Your task to perform on an android device: install app "VLC for Android" Image 0: 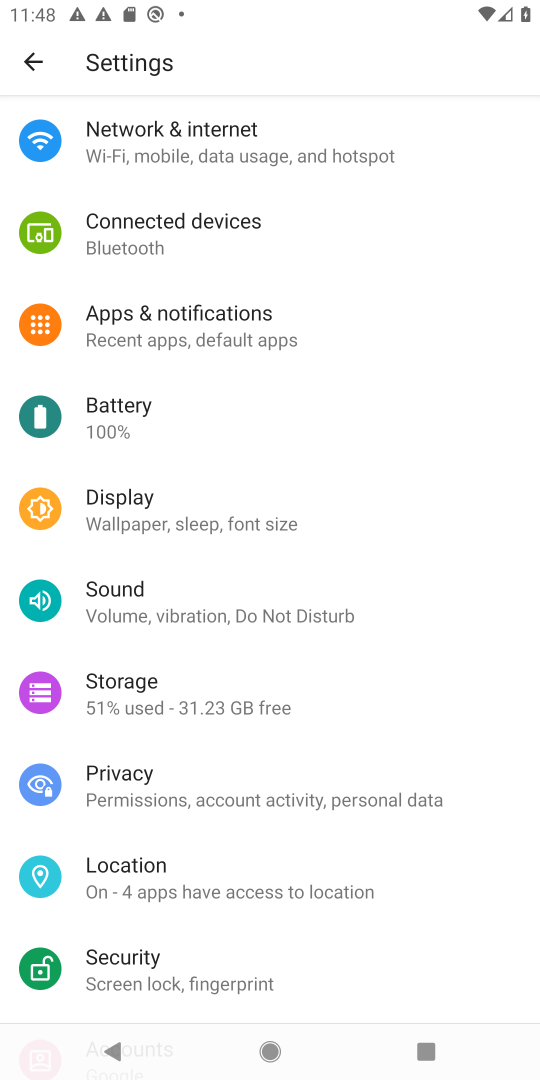
Step 0: press home button
Your task to perform on an android device: install app "VLC for Android" Image 1: 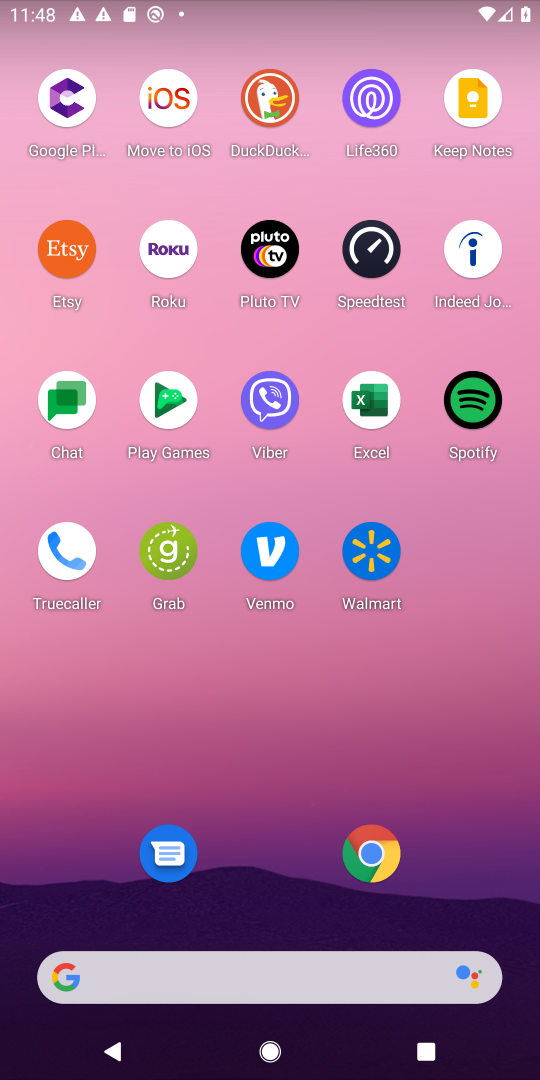
Step 1: drag from (297, 1010) to (300, 40)
Your task to perform on an android device: install app "VLC for Android" Image 2: 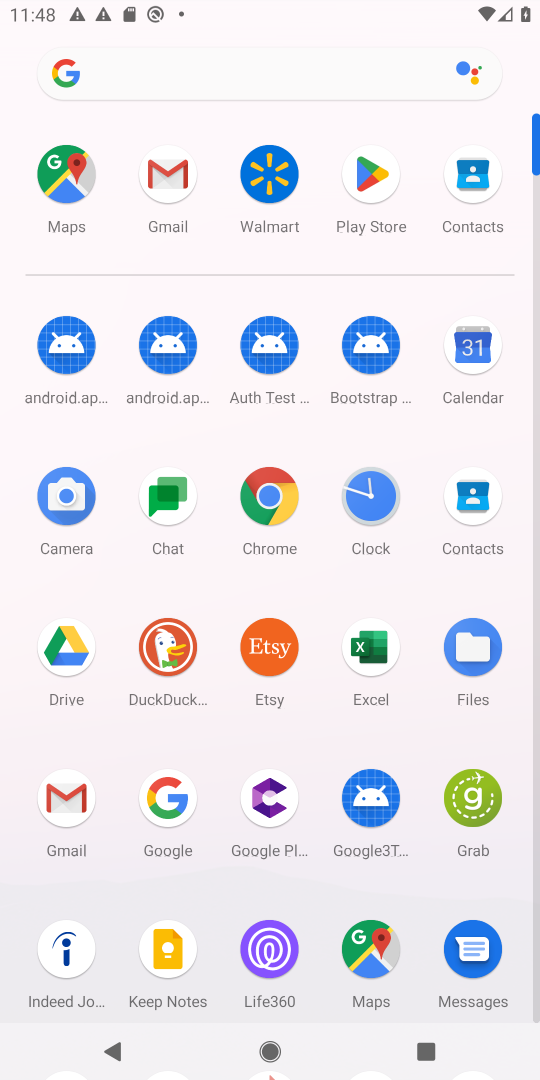
Step 2: click (372, 174)
Your task to perform on an android device: install app "VLC for Android" Image 3: 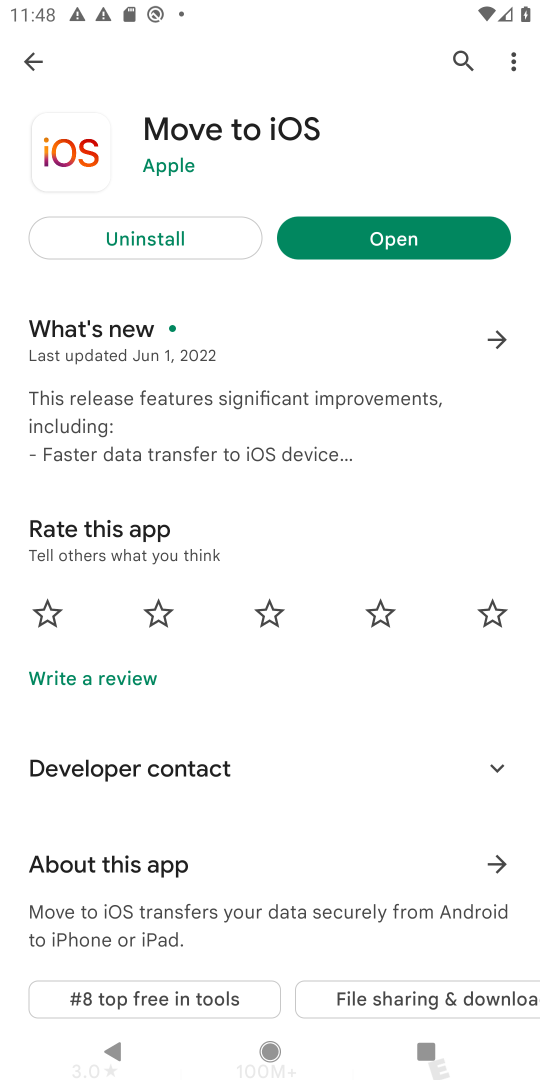
Step 3: click (459, 48)
Your task to perform on an android device: install app "VLC for Android" Image 4: 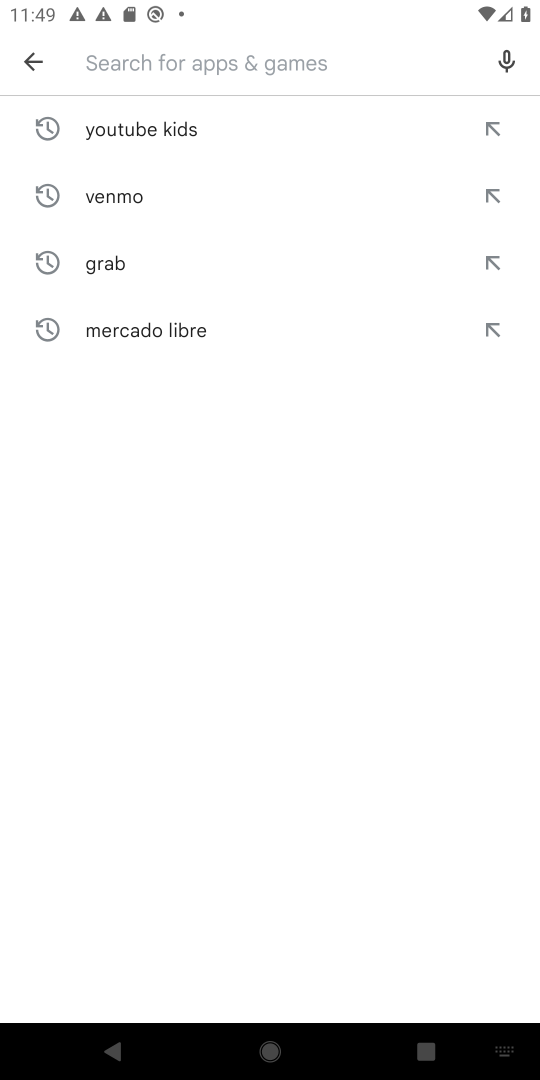
Step 4: type "VLC for Android"
Your task to perform on an android device: install app "VLC for Android" Image 5: 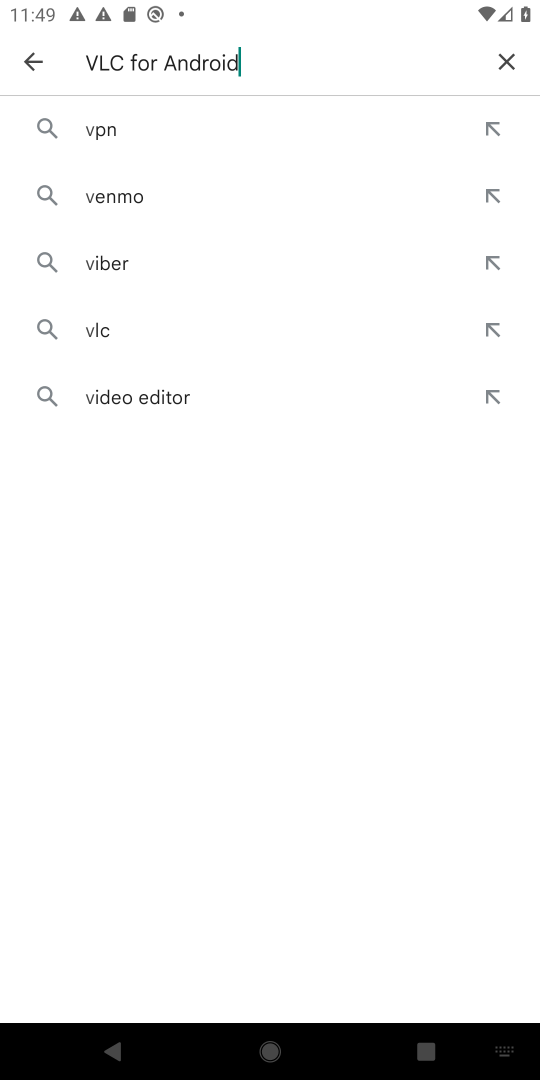
Step 5: type ""
Your task to perform on an android device: install app "VLC for Android" Image 6: 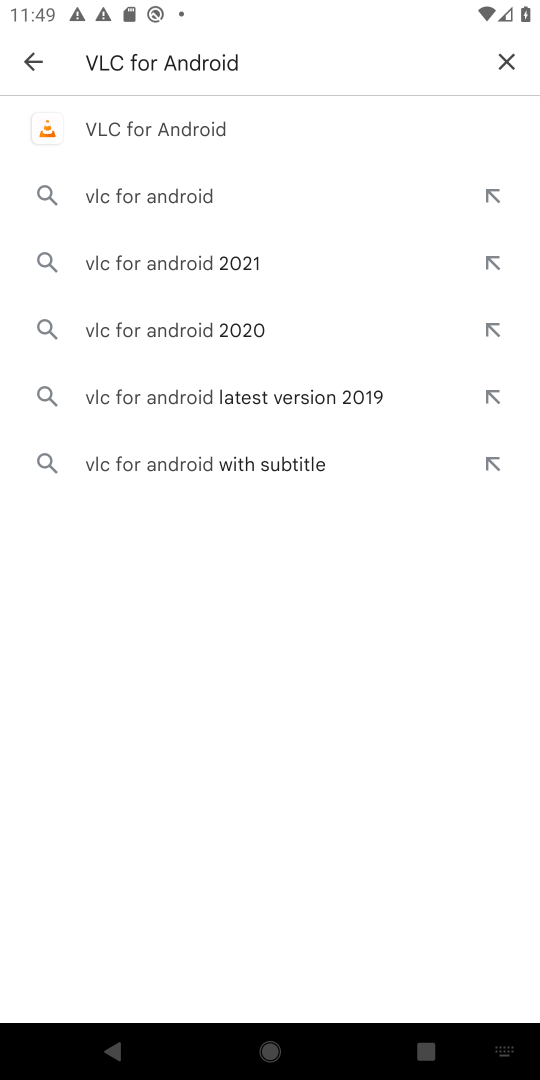
Step 6: click (165, 120)
Your task to perform on an android device: install app "VLC for Android" Image 7: 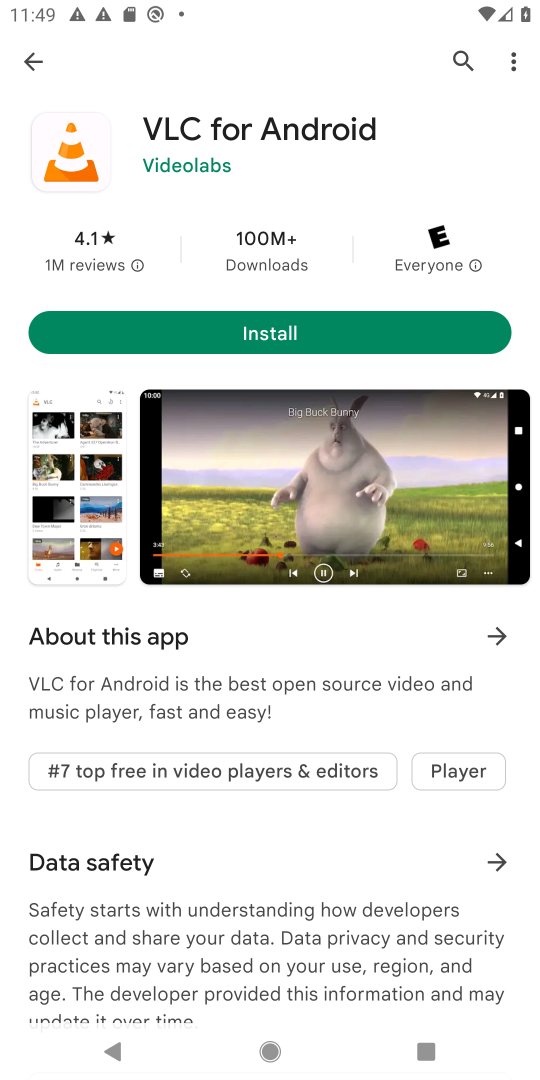
Step 7: click (267, 332)
Your task to perform on an android device: install app "VLC for Android" Image 8: 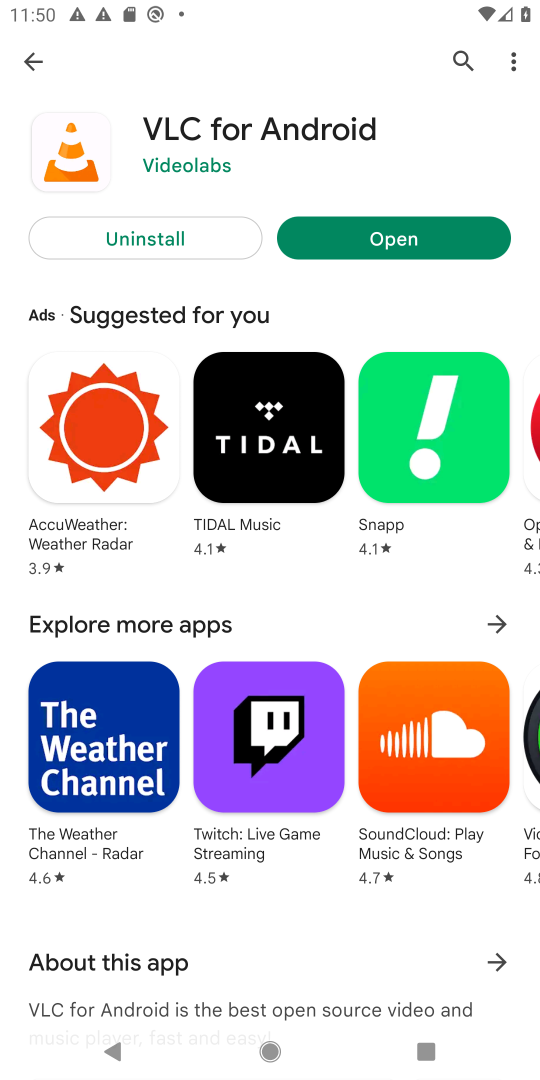
Step 8: task complete